Your task to perform on an android device: turn notification dots on Image 0: 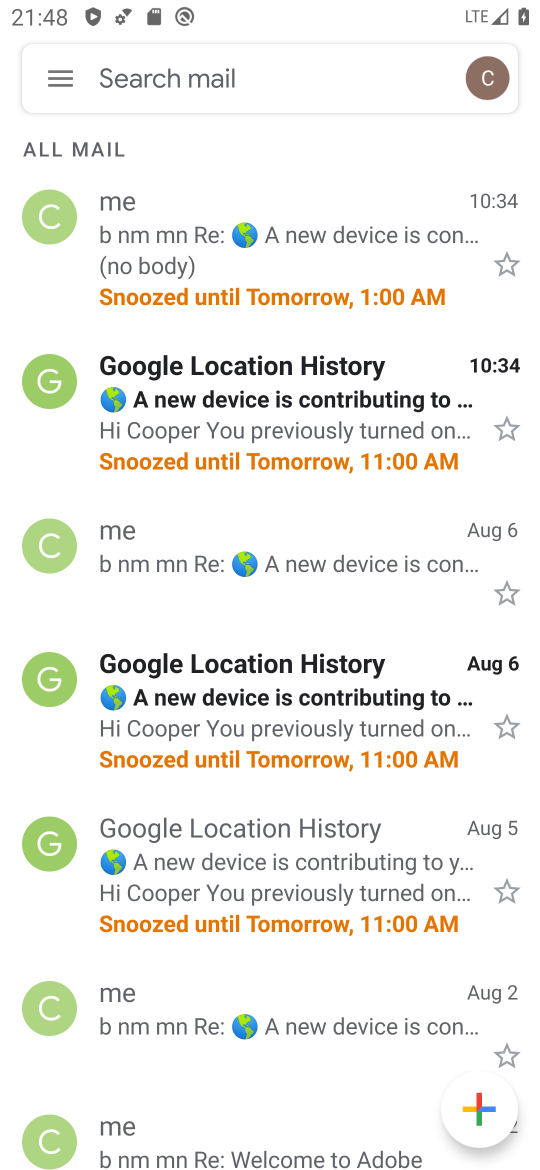
Step 0: press home button
Your task to perform on an android device: turn notification dots on Image 1: 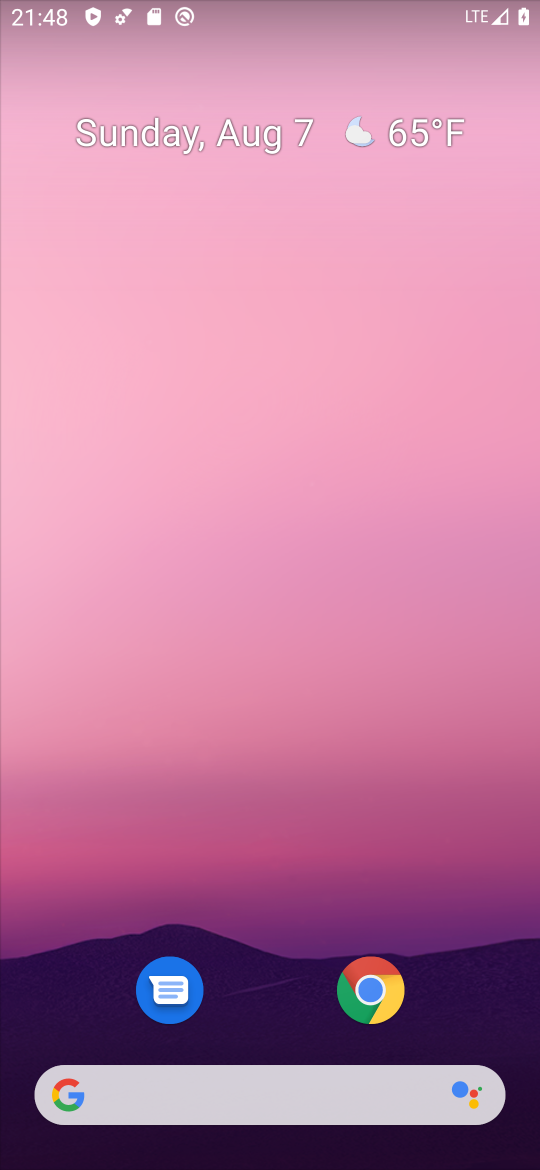
Step 1: drag from (301, 590) to (339, 0)
Your task to perform on an android device: turn notification dots on Image 2: 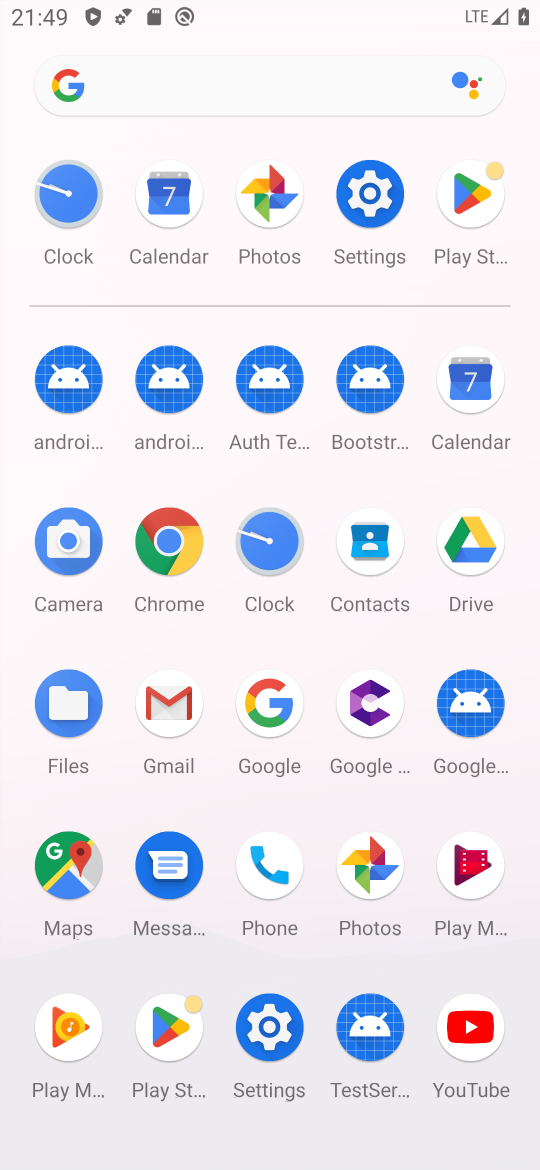
Step 2: click (366, 195)
Your task to perform on an android device: turn notification dots on Image 3: 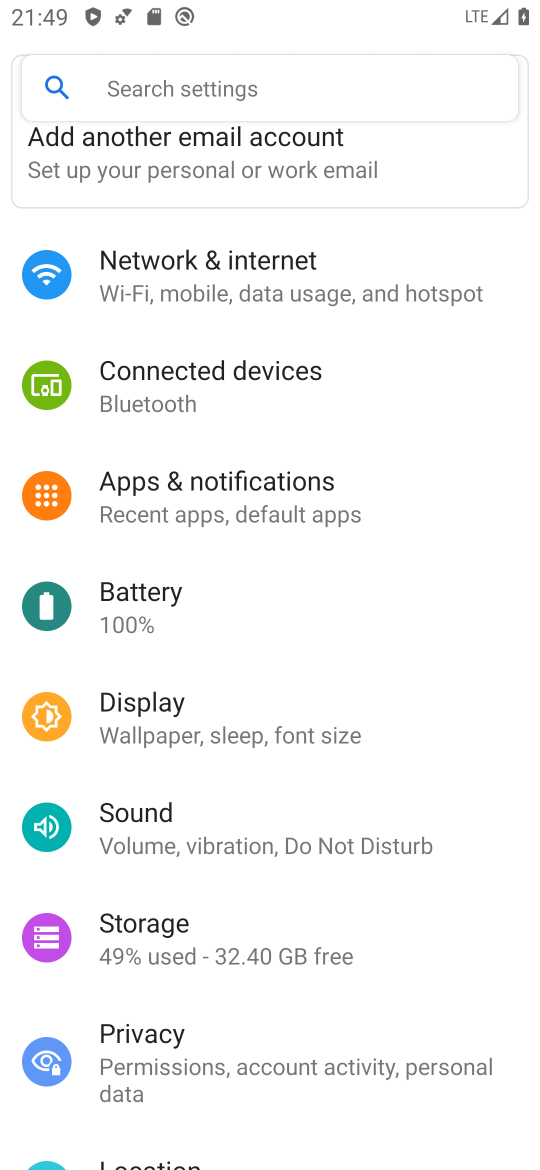
Step 3: drag from (321, 1025) to (391, 986)
Your task to perform on an android device: turn notification dots on Image 4: 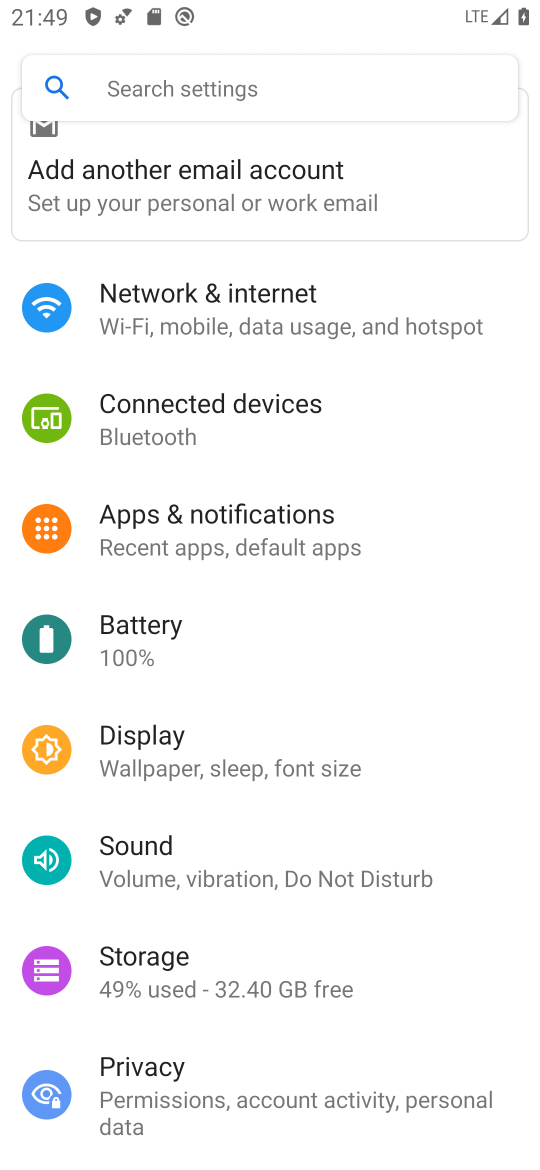
Step 4: click (290, 546)
Your task to perform on an android device: turn notification dots on Image 5: 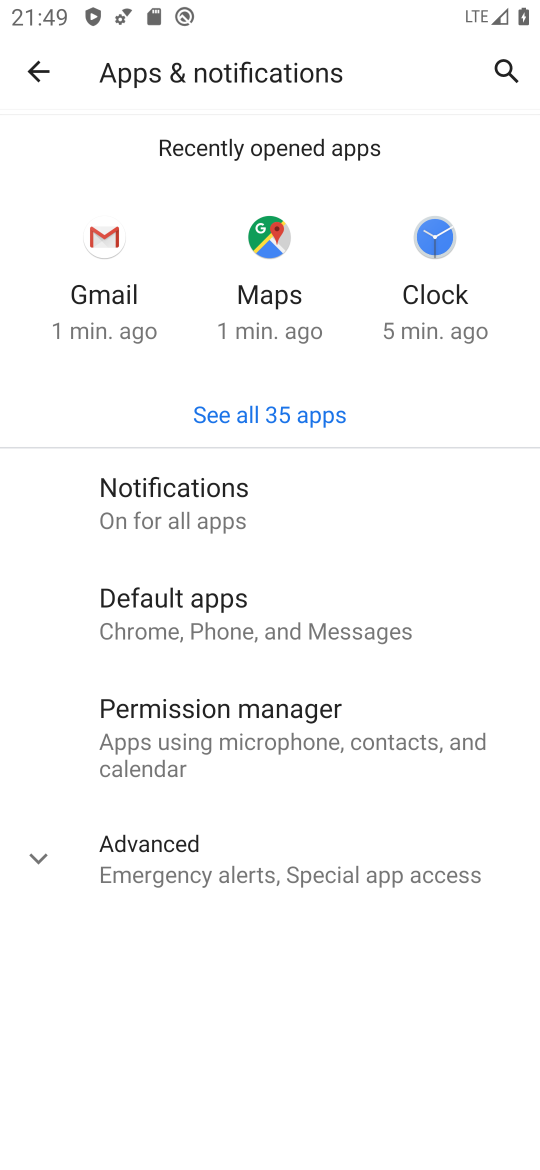
Step 5: click (196, 503)
Your task to perform on an android device: turn notification dots on Image 6: 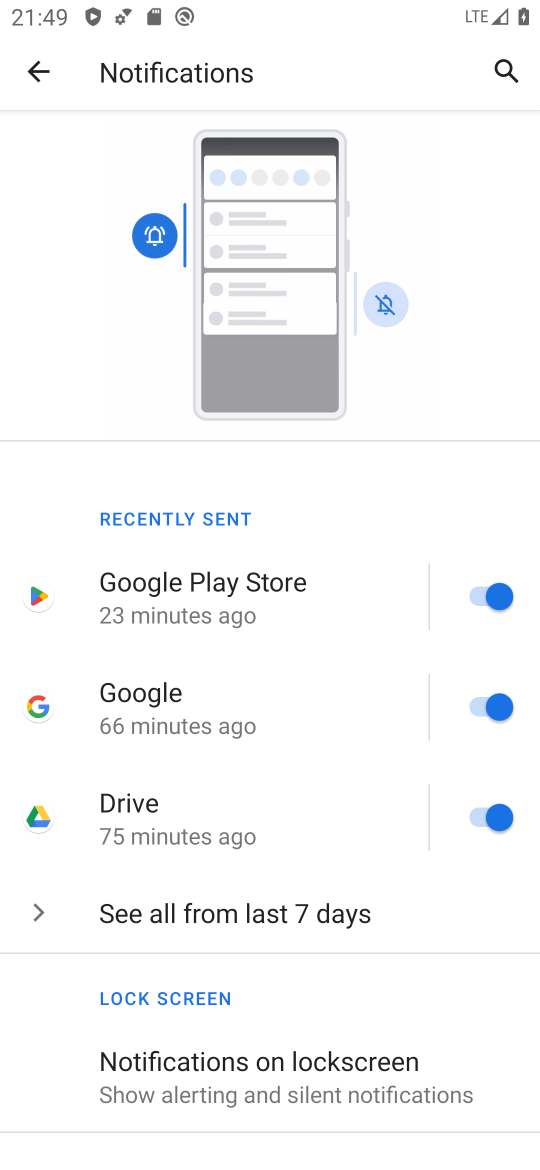
Step 6: drag from (356, 811) to (364, 563)
Your task to perform on an android device: turn notification dots on Image 7: 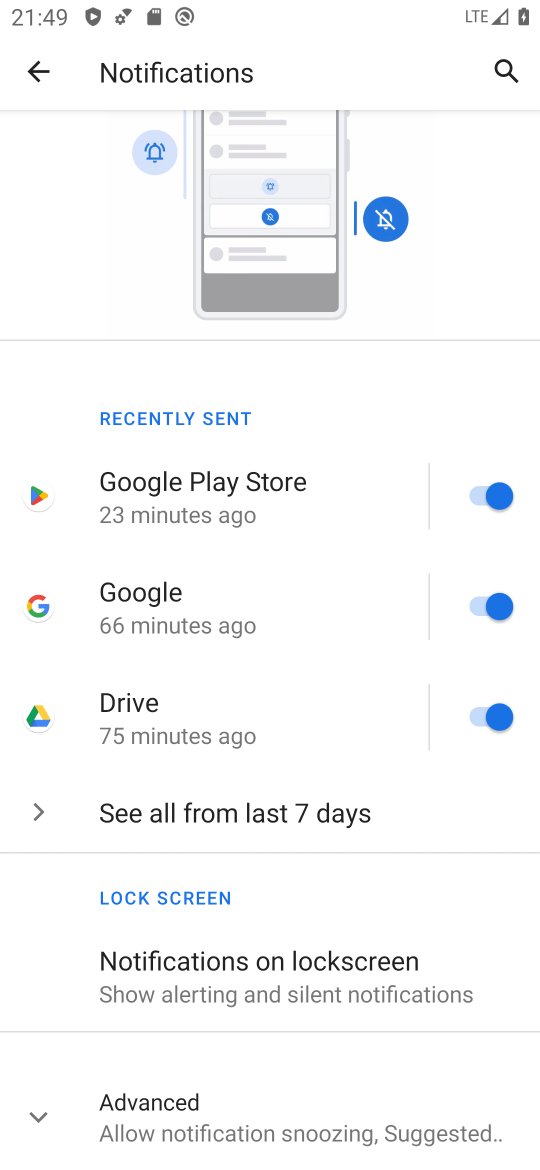
Step 7: click (32, 1111)
Your task to perform on an android device: turn notification dots on Image 8: 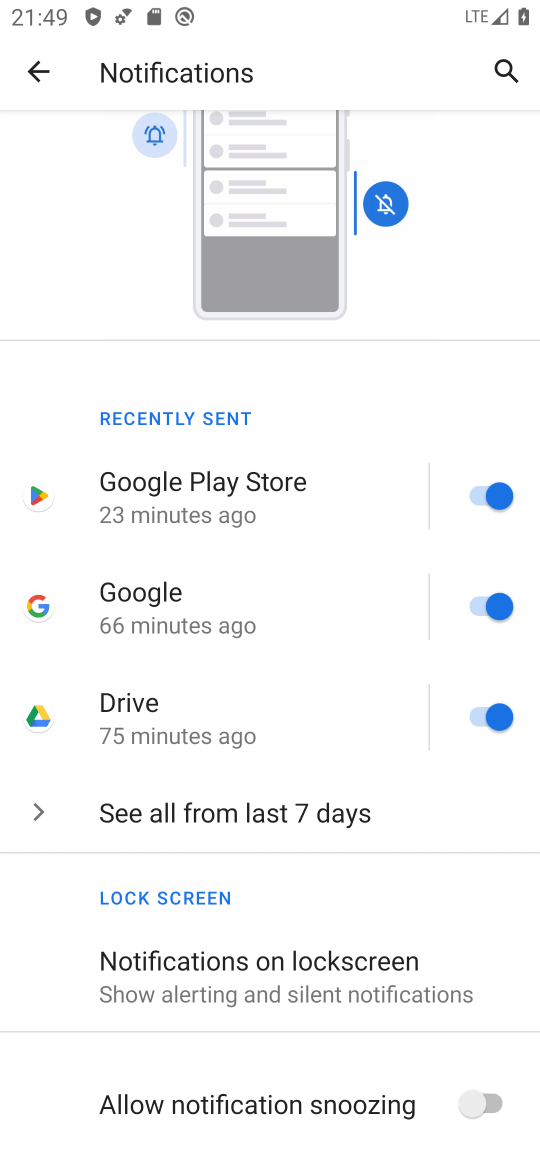
Step 8: drag from (366, 698) to (365, 241)
Your task to perform on an android device: turn notification dots on Image 9: 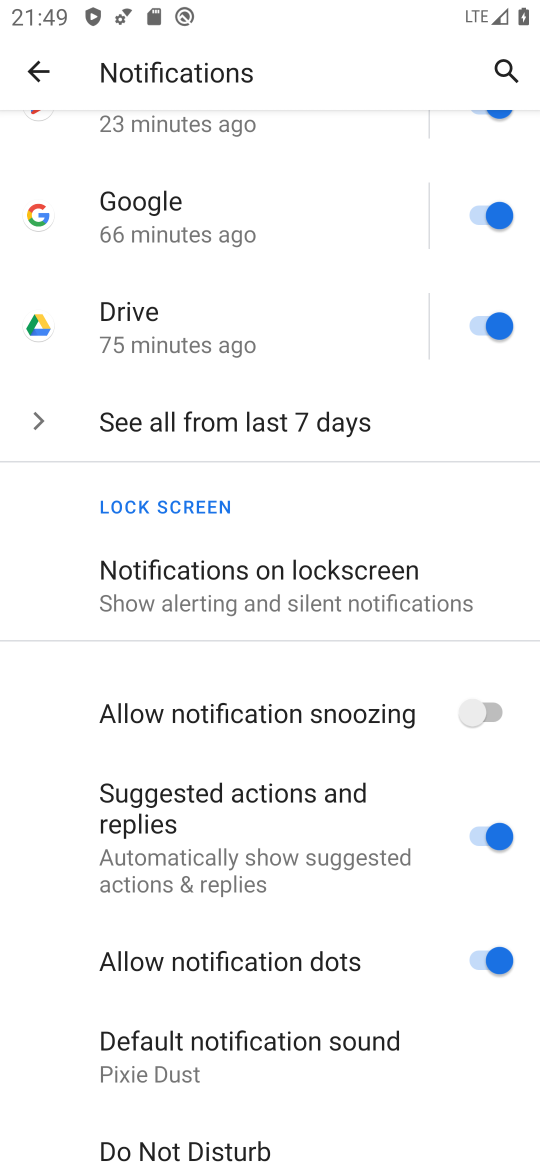
Step 9: click (489, 958)
Your task to perform on an android device: turn notification dots on Image 10: 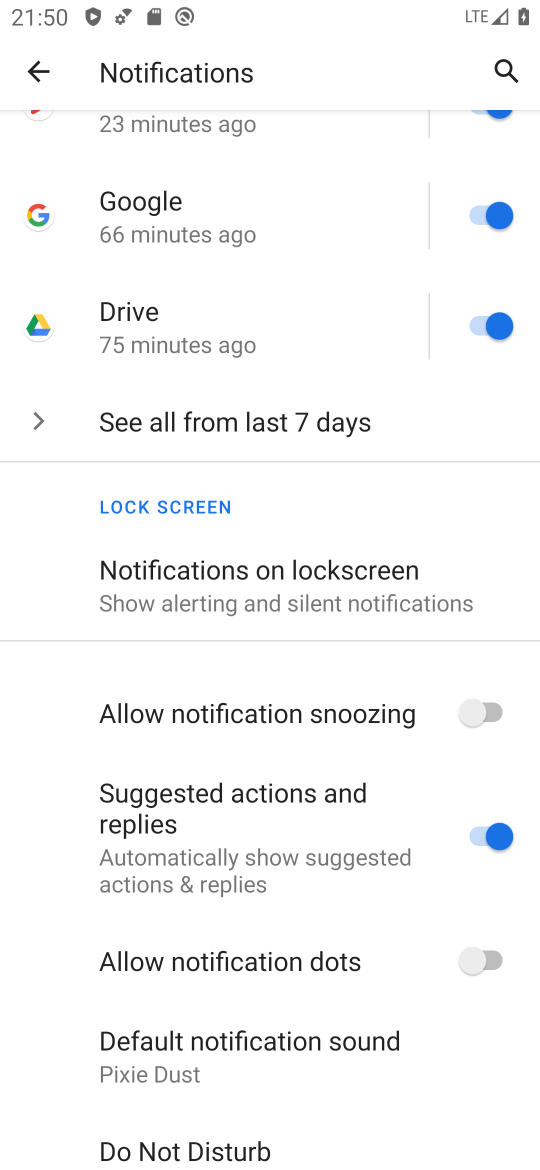
Step 10: click (490, 957)
Your task to perform on an android device: turn notification dots on Image 11: 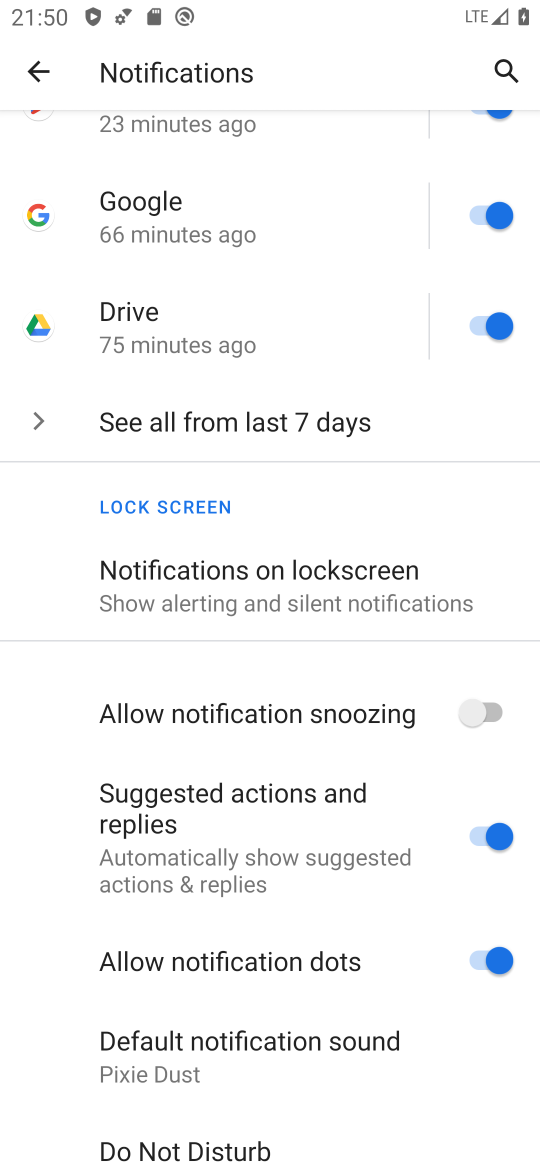
Step 11: task complete